Your task to perform on an android device: Search for the most popular coffee table on Crate & Barrel Image 0: 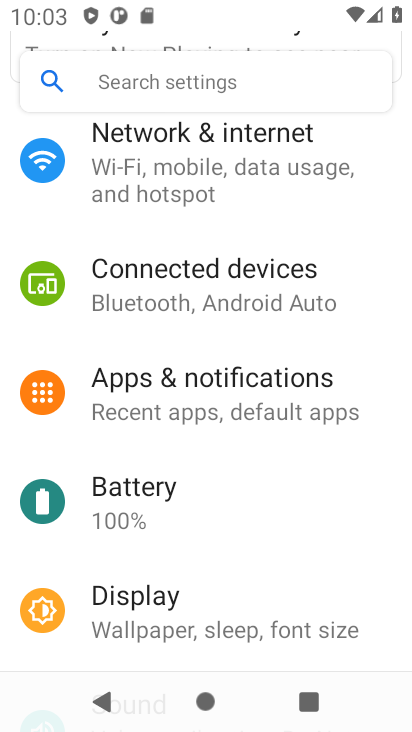
Step 0: press home button
Your task to perform on an android device: Search for the most popular coffee table on Crate & Barrel Image 1: 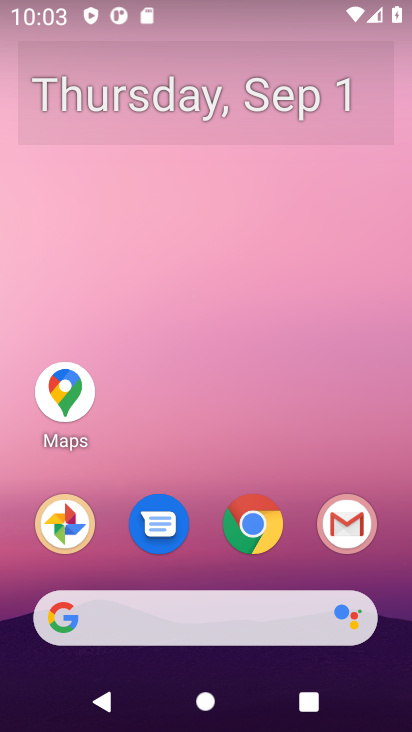
Step 1: drag from (374, 423) to (394, 73)
Your task to perform on an android device: Search for the most popular coffee table on Crate & Barrel Image 2: 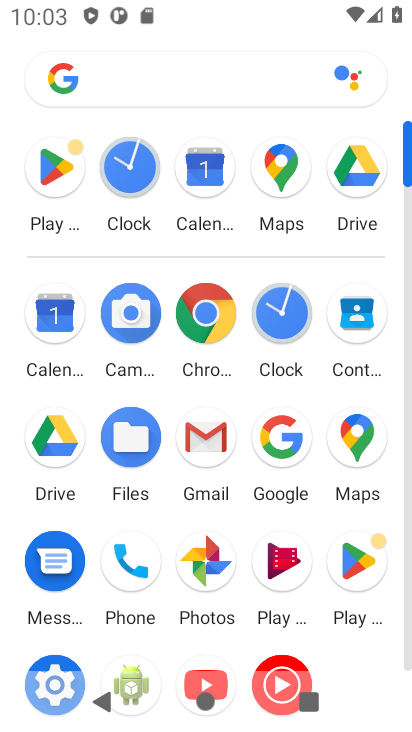
Step 2: click (207, 312)
Your task to perform on an android device: Search for the most popular coffee table on Crate & Barrel Image 3: 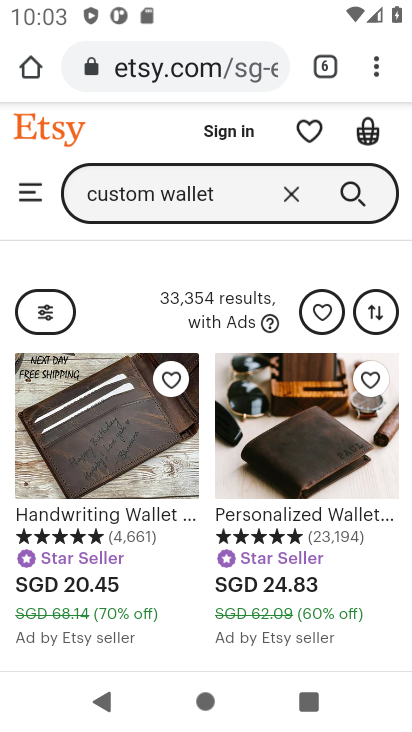
Step 3: click (205, 66)
Your task to perform on an android device: Search for the most popular coffee table on Crate & Barrel Image 4: 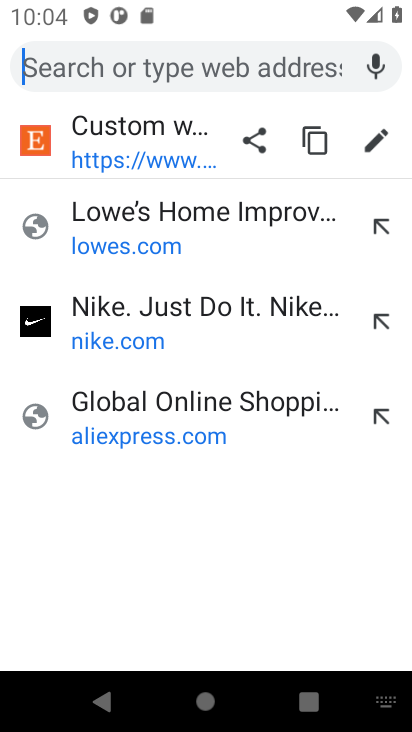
Step 4: type "crate barrel"
Your task to perform on an android device: Search for the most popular coffee table on Crate & Barrel Image 5: 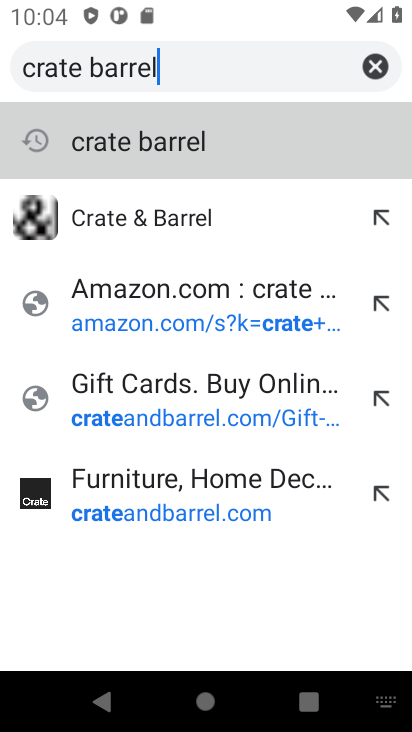
Step 5: press enter
Your task to perform on an android device: Search for the most popular coffee table on Crate & Barrel Image 6: 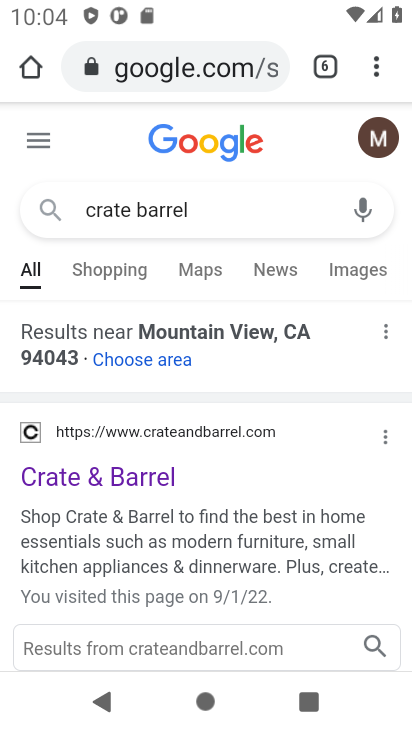
Step 6: click (129, 478)
Your task to perform on an android device: Search for the most popular coffee table on Crate & Barrel Image 7: 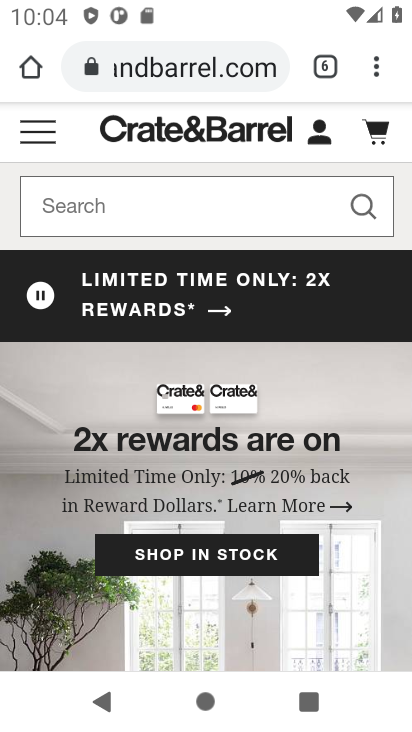
Step 7: click (215, 195)
Your task to perform on an android device: Search for the most popular coffee table on Crate & Barrel Image 8: 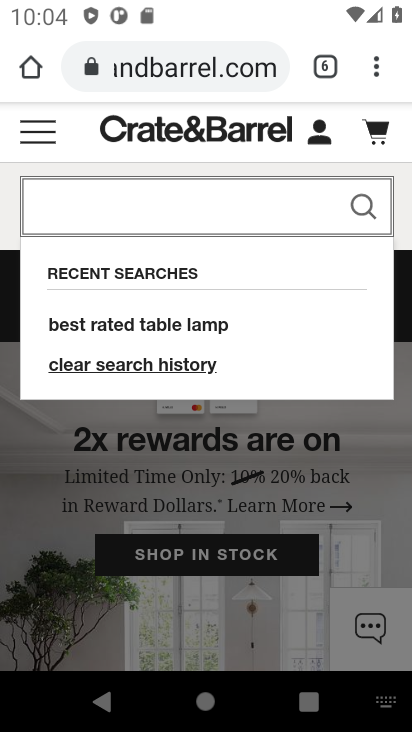
Step 8: press enter
Your task to perform on an android device: Search for the most popular coffee table on Crate & Barrel Image 9: 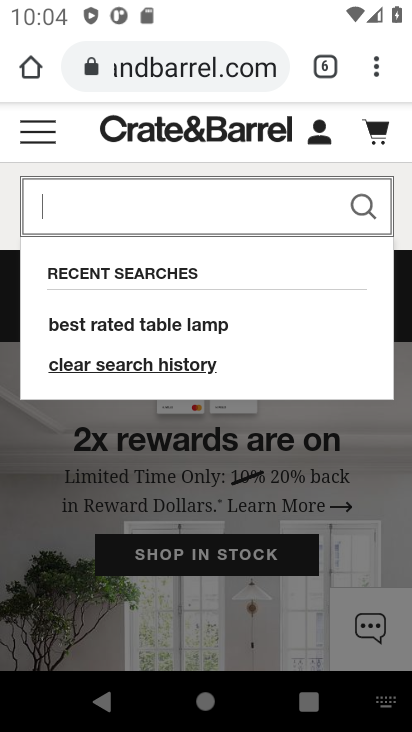
Step 9: type "most popular coffee table "
Your task to perform on an android device: Search for the most popular coffee table on Crate & Barrel Image 10: 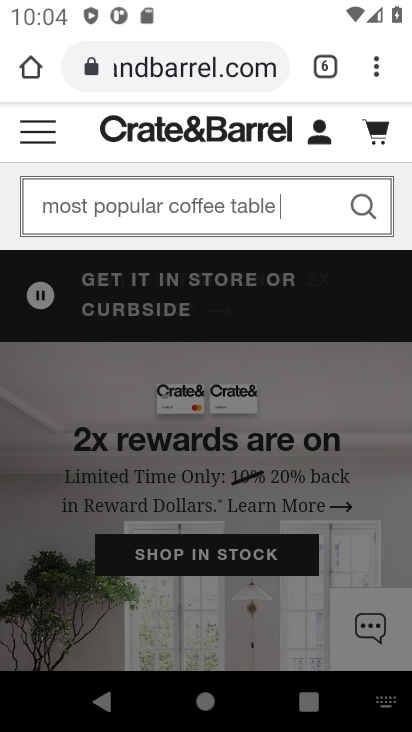
Step 10: click (362, 201)
Your task to perform on an android device: Search for the most popular coffee table on Crate & Barrel Image 11: 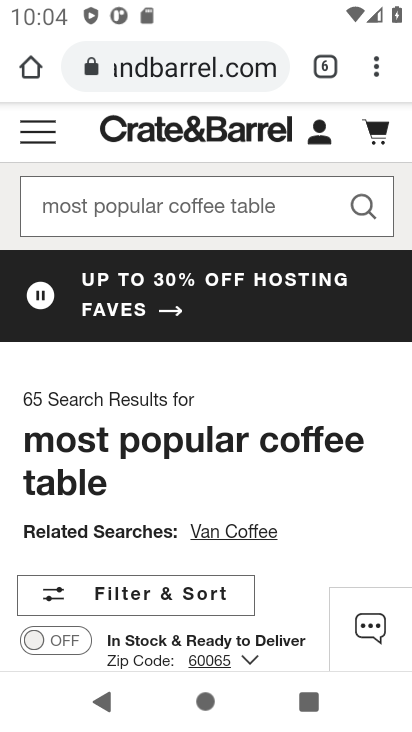
Step 11: task complete